Your task to perform on an android device: Is it going to rain tomorrow? Image 0: 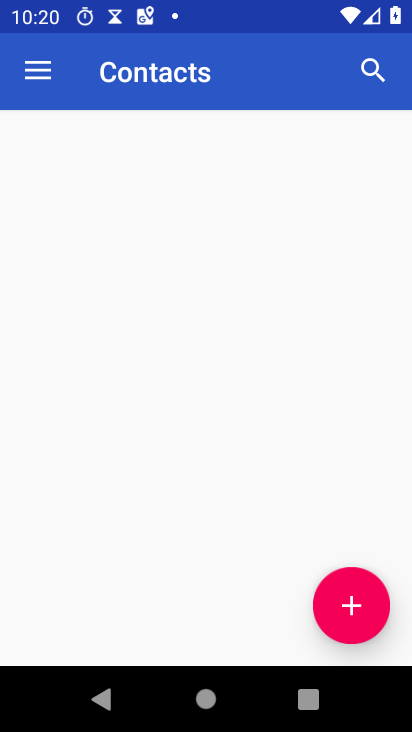
Step 0: press home button
Your task to perform on an android device: Is it going to rain tomorrow? Image 1: 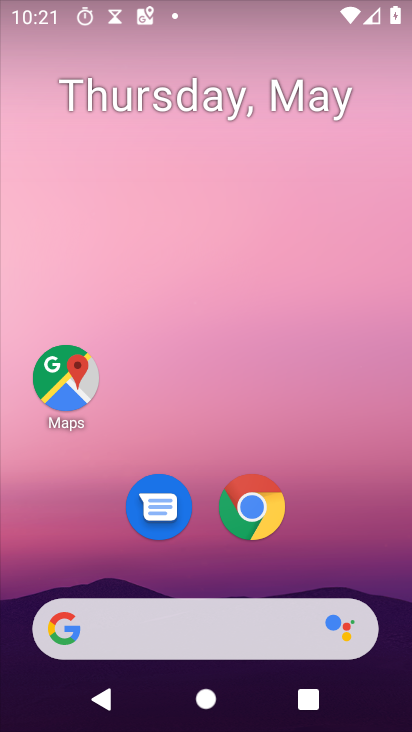
Step 1: click (207, 629)
Your task to perform on an android device: Is it going to rain tomorrow? Image 2: 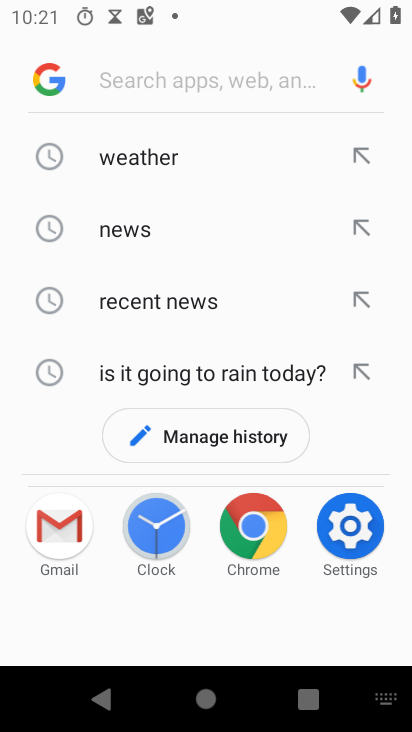
Step 2: click (271, 372)
Your task to perform on an android device: Is it going to rain tomorrow? Image 3: 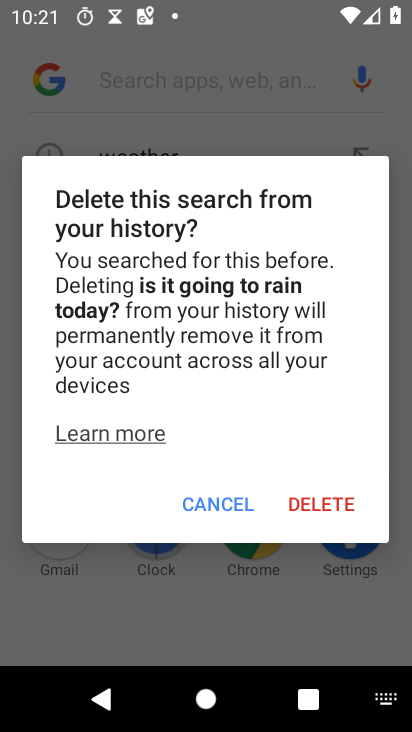
Step 3: click (237, 497)
Your task to perform on an android device: Is it going to rain tomorrow? Image 4: 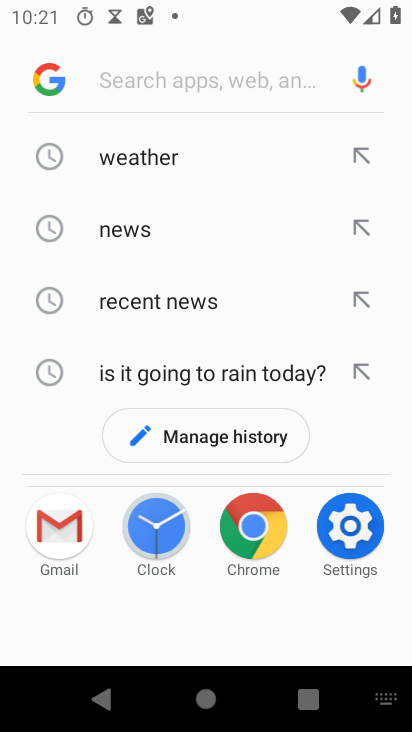
Step 4: click (170, 377)
Your task to perform on an android device: Is it going to rain tomorrow? Image 5: 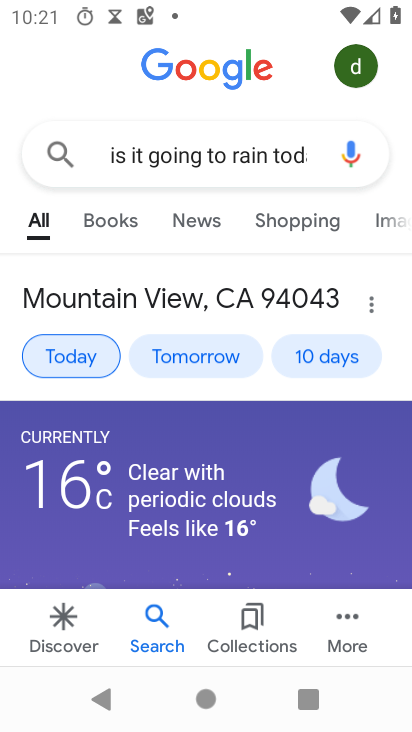
Step 5: drag from (282, 534) to (240, 246)
Your task to perform on an android device: Is it going to rain tomorrow? Image 6: 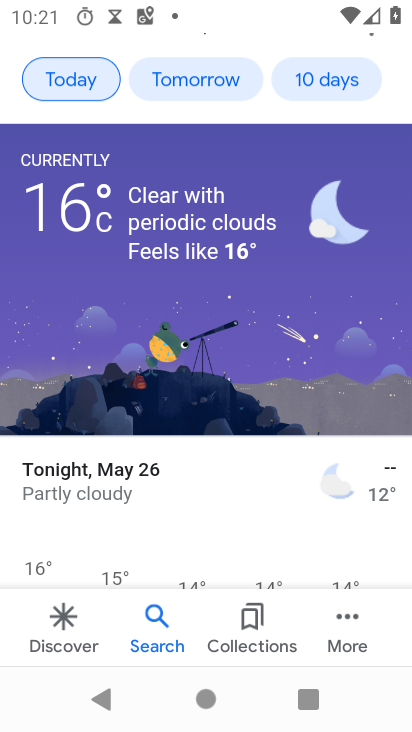
Step 6: click (214, 91)
Your task to perform on an android device: Is it going to rain tomorrow? Image 7: 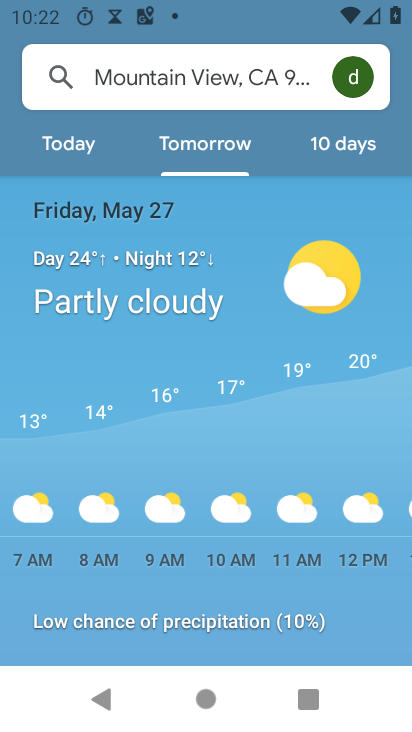
Step 7: task complete